Your task to perform on an android device: delete the emails in spam in the gmail app Image 0: 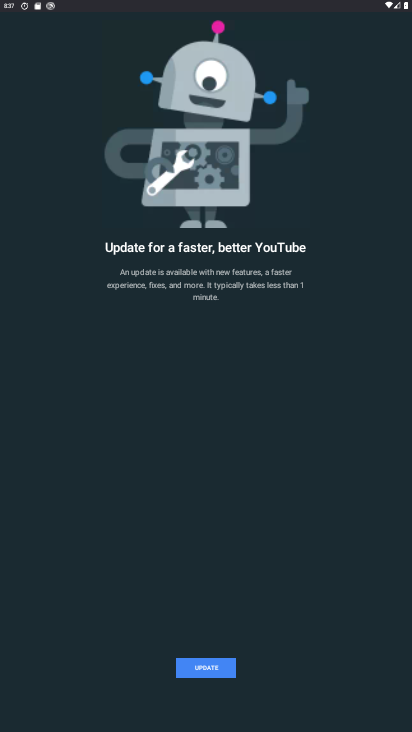
Step 0: press home button
Your task to perform on an android device: delete the emails in spam in the gmail app Image 1: 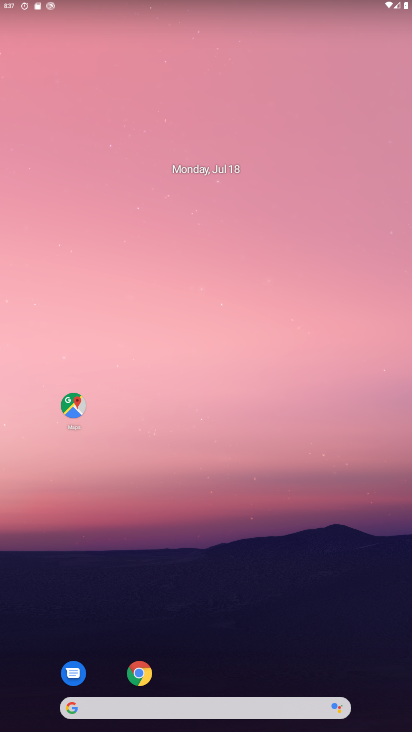
Step 1: drag from (187, 647) to (151, 83)
Your task to perform on an android device: delete the emails in spam in the gmail app Image 2: 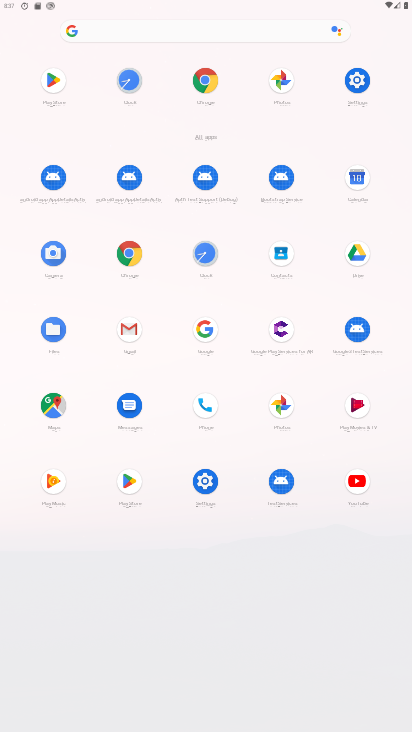
Step 2: click (127, 333)
Your task to perform on an android device: delete the emails in spam in the gmail app Image 3: 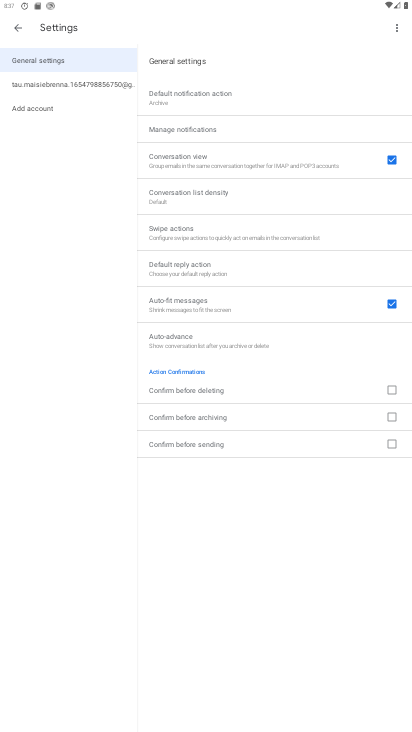
Step 3: click (13, 26)
Your task to perform on an android device: delete the emails in spam in the gmail app Image 4: 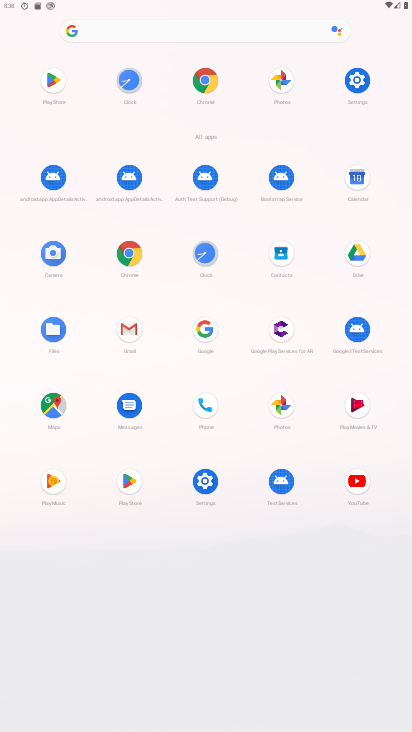
Step 4: click (122, 334)
Your task to perform on an android device: delete the emails in spam in the gmail app Image 5: 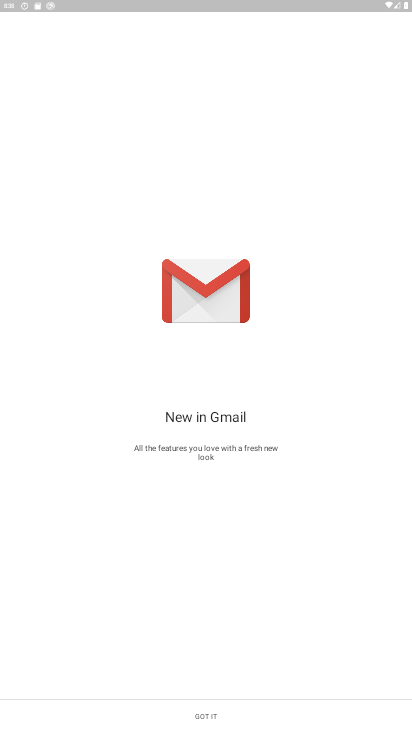
Step 5: click (207, 713)
Your task to perform on an android device: delete the emails in spam in the gmail app Image 6: 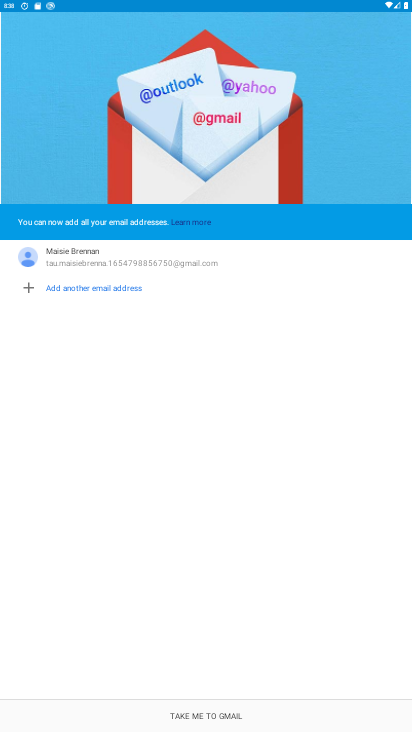
Step 6: click (207, 713)
Your task to perform on an android device: delete the emails in spam in the gmail app Image 7: 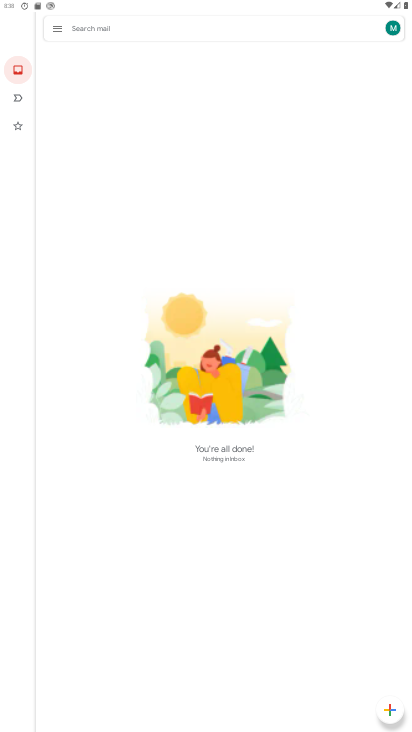
Step 7: click (58, 31)
Your task to perform on an android device: delete the emails in spam in the gmail app Image 8: 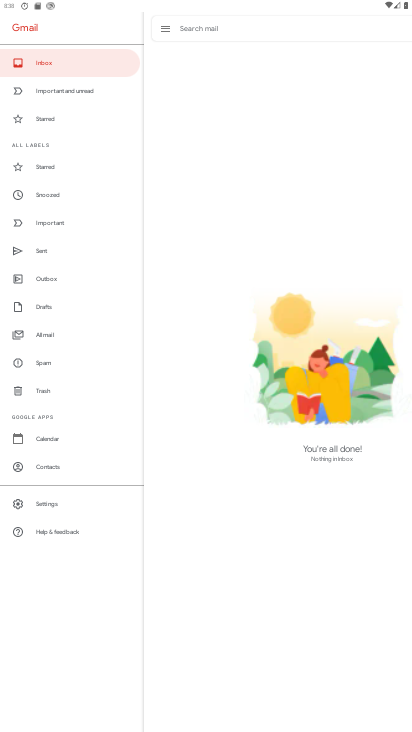
Step 8: click (44, 365)
Your task to perform on an android device: delete the emails in spam in the gmail app Image 9: 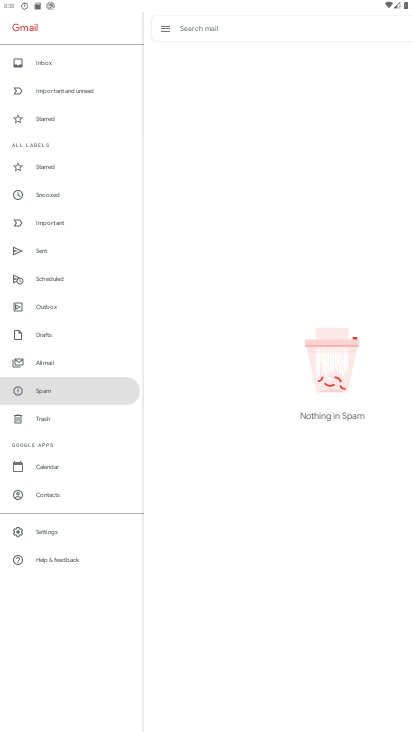
Step 9: task complete